Your task to perform on an android device: change the clock style Image 0: 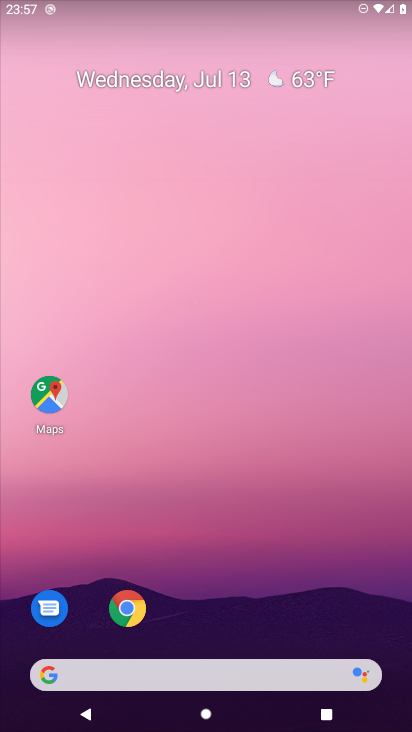
Step 0: press home button
Your task to perform on an android device: change the clock style Image 1: 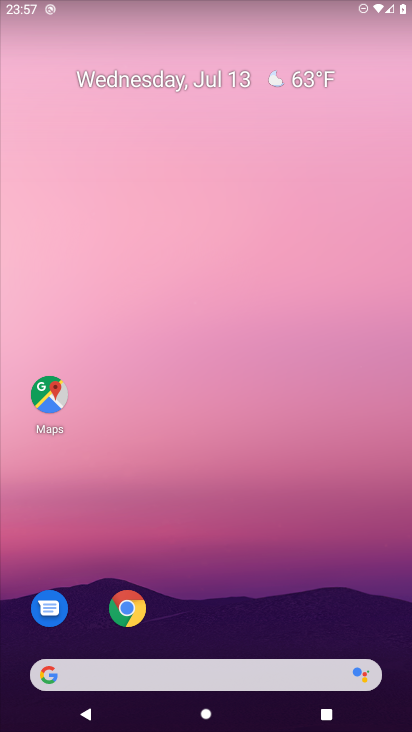
Step 1: drag from (221, 639) to (138, 0)
Your task to perform on an android device: change the clock style Image 2: 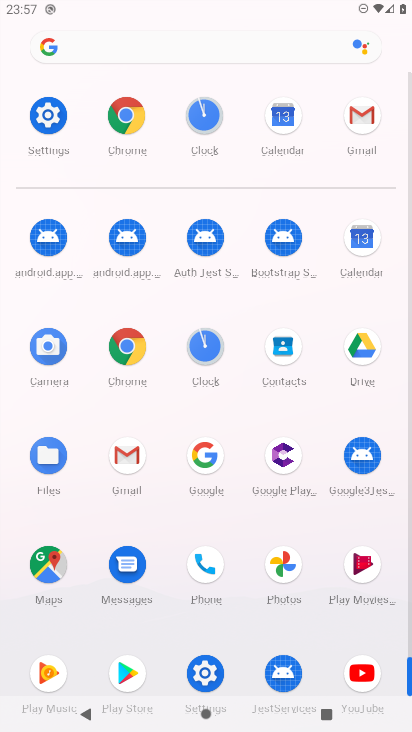
Step 2: click (208, 118)
Your task to perform on an android device: change the clock style Image 3: 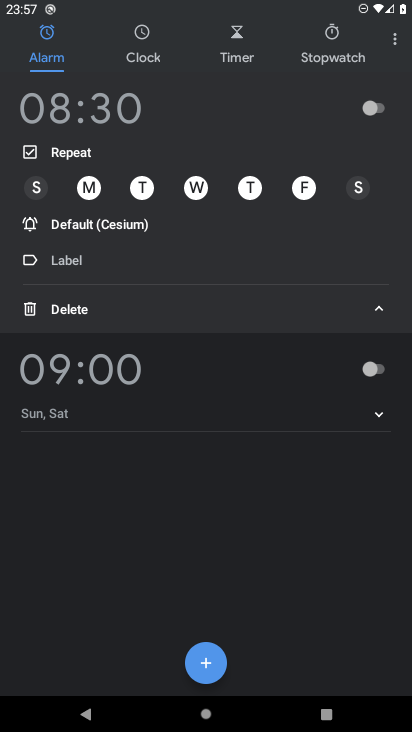
Step 3: click (394, 40)
Your task to perform on an android device: change the clock style Image 4: 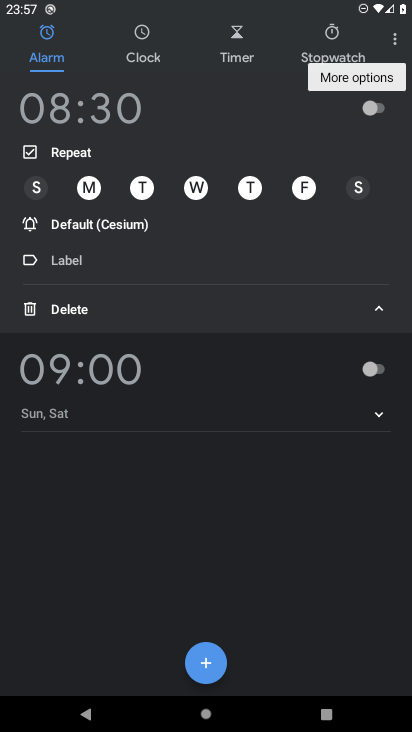
Step 4: click (394, 40)
Your task to perform on an android device: change the clock style Image 5: 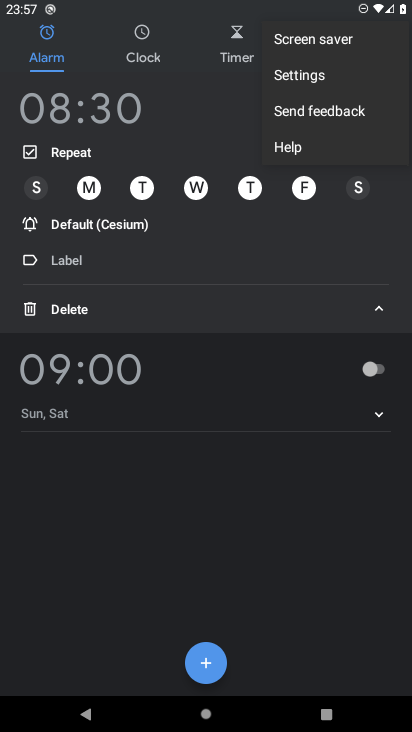
Step 5: click (314, 75)
Your task to perform on an android device: change the clock style Image 6: 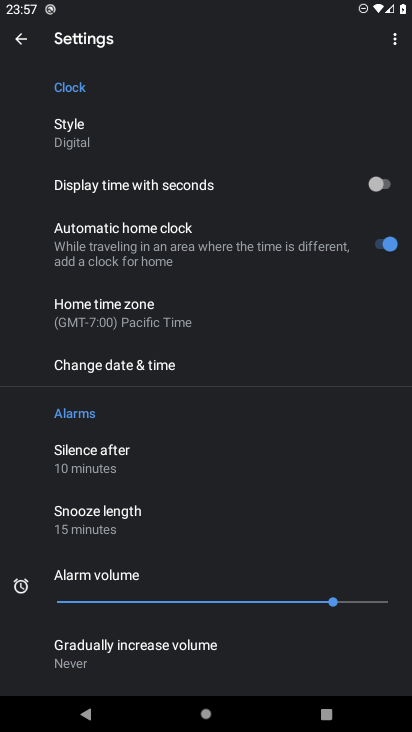
Step 6: click (65, 140)
Your task to perform on an android device: change the clock style Image 7: 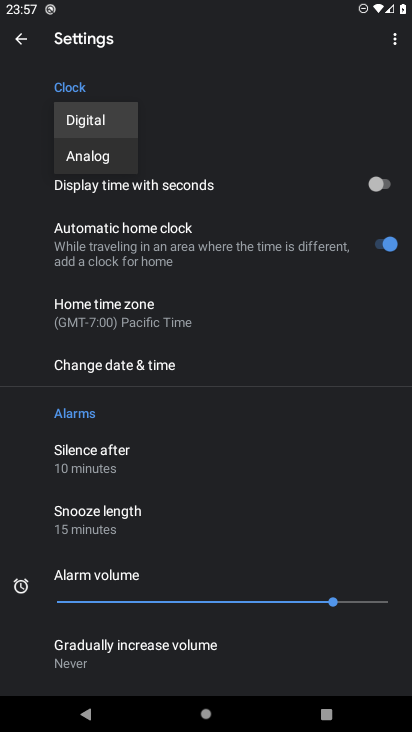
Step 7: click (102, 161)
Your task to perform on an android device: change the clock style Image 8: 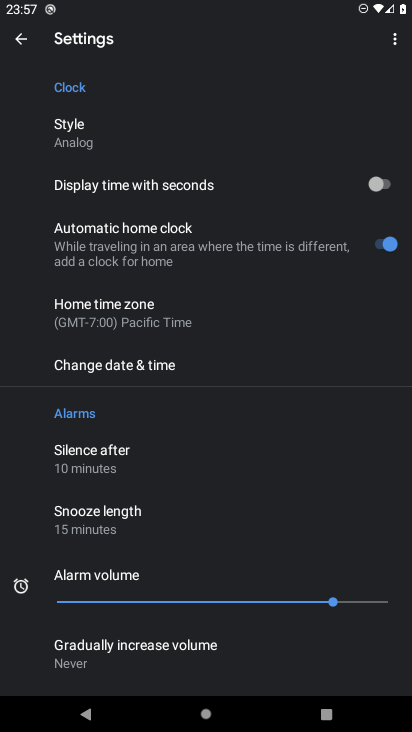
Step 8: task complete